Your task to perform on an android device: Search for Mexican restaurants on Maps Image 0: 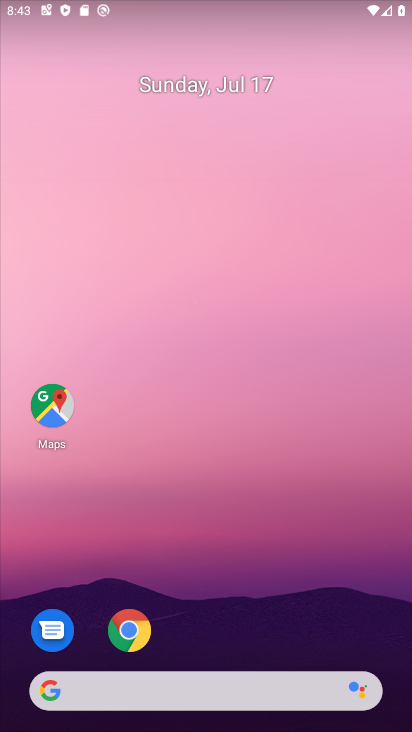
Step 0: click (44, 409)
Your task to perform on an android device: Search for Mexican restaurants on Maps Image 1: 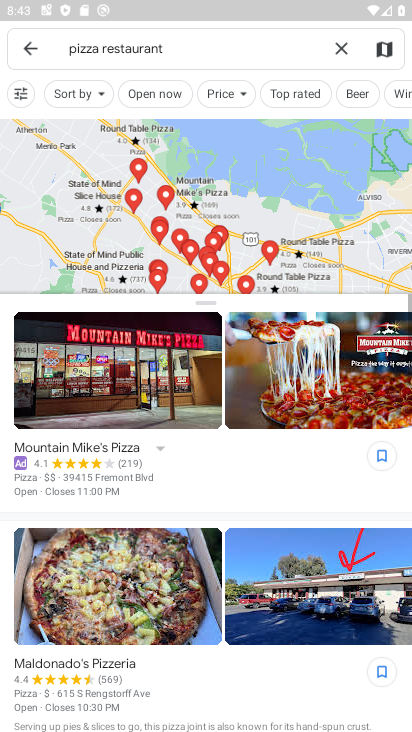
Step 1: click (339, 45)
Your task to perform on an android device: Search for Mexican restaurants on Maps Image 2: 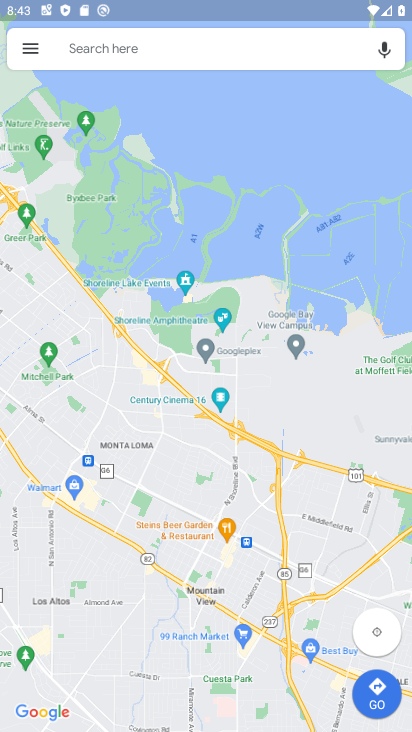
Step 2: type "mexican restaurants "
Your task to perform on an android device: Search for Mexican restaurants on Maps Image 3: 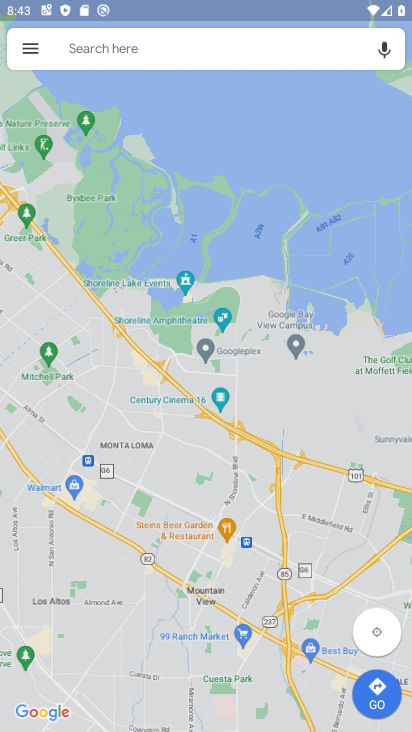
Step 3: click (228, 55)
Your task to perform on an android device: Search for Mexican restaurants on Maps Image 4: 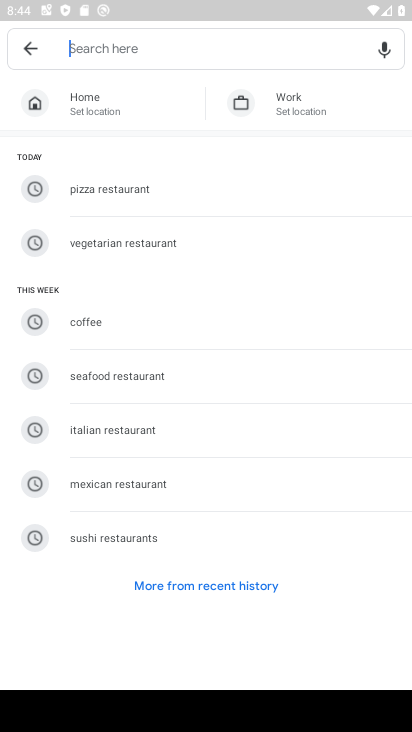
Step 4: click (140, 490)
Your task to perform on an android device: Search for Mexican restaurants on Maps Image 5: 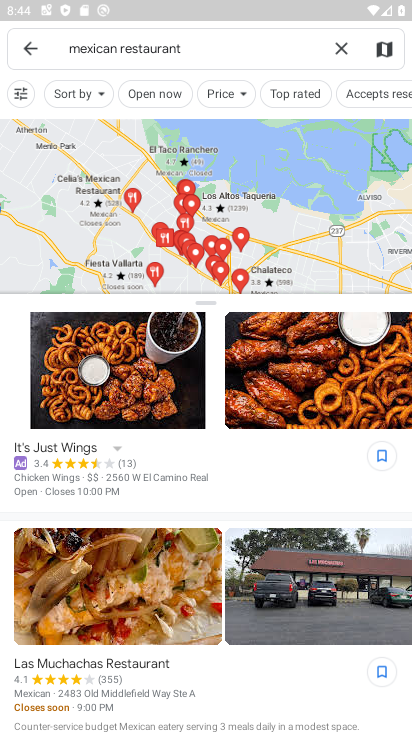
Step 5: task complete